Your task to perform on an android device: install app "Walmart Shopping & Grocery" Image 0: 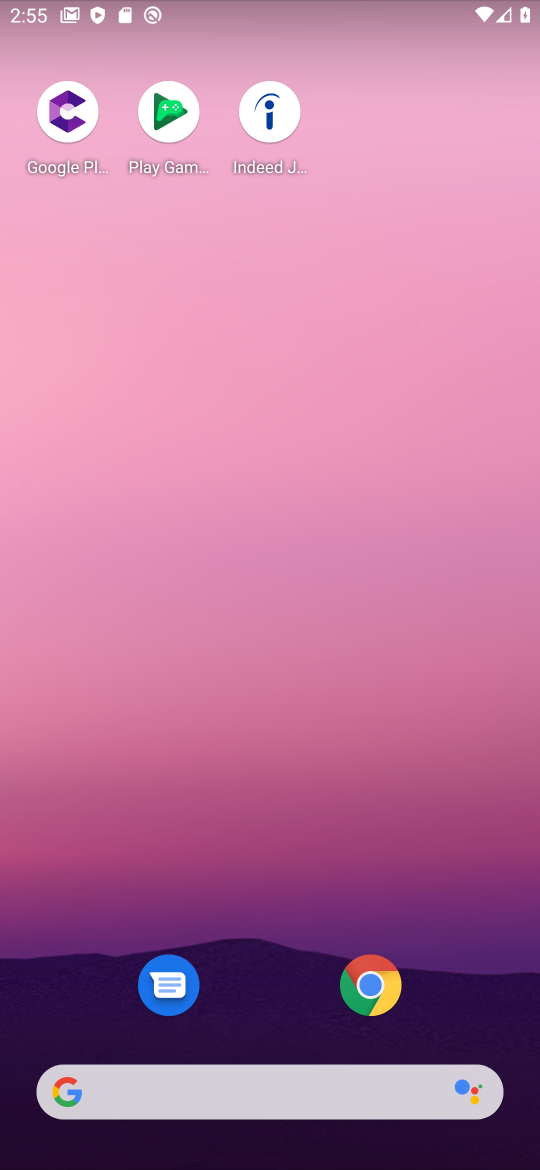
Step 0: drag from (233, 962) to (261, 341)
Your task to perform on an android device: install app "Walmart Shopping & Grocery" Image 1: 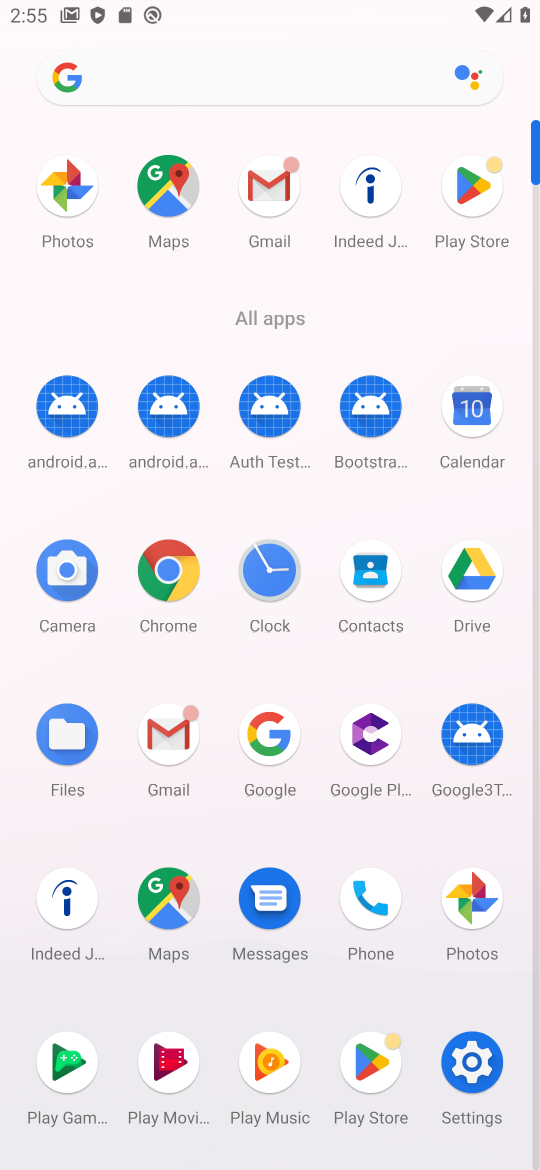
Step 1: click (485, 202)
Your task to perform on an android device: install app "Walmart Shopping & Grocery" Image 2: 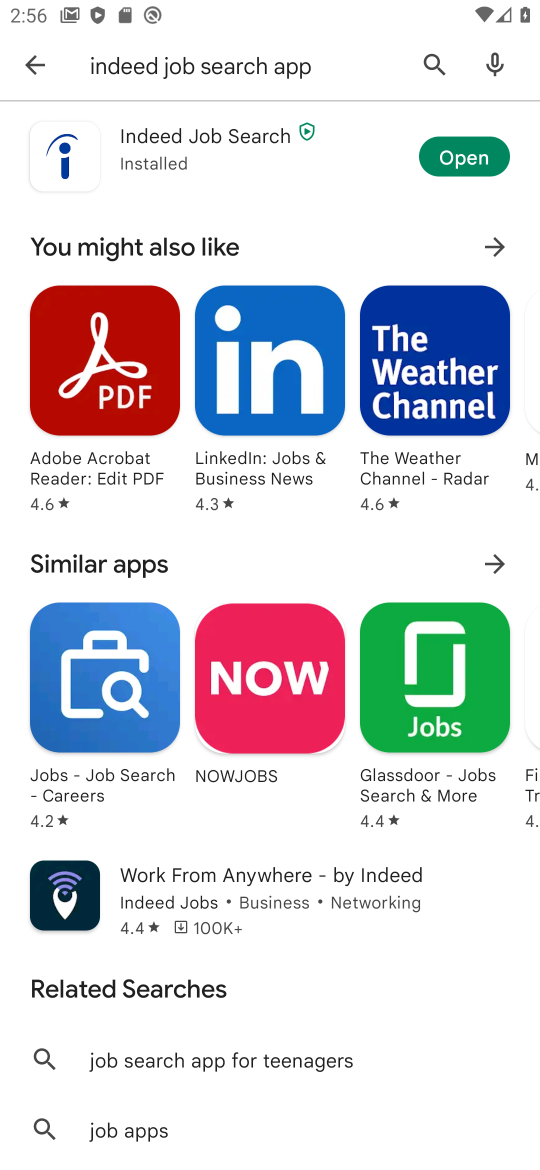
Step 2: click (36, 67)
Your task to perform on an android device: install app "Walmart Shopping & Grocery" Image 3: 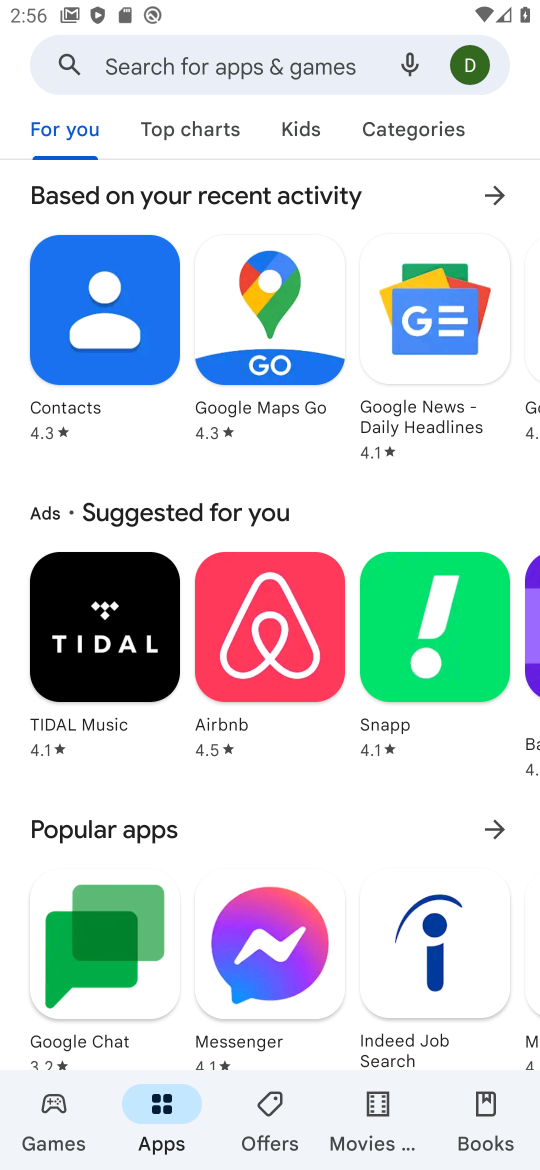
Step 3: click (273, 71)
Your task to perform on an android device: install app "Walmart Shopping & Grocery" Image 4: 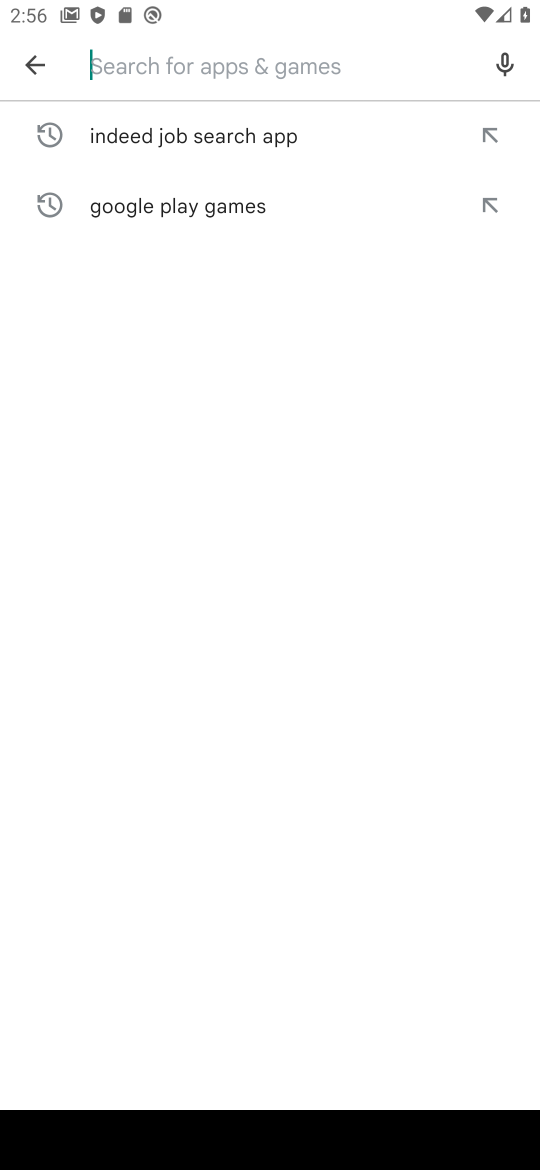
Step 4: type "Walmart Shopping & Grocery"
Your task to perform on an android device: install app "Walmart Shopping & Grocery" Image 5: 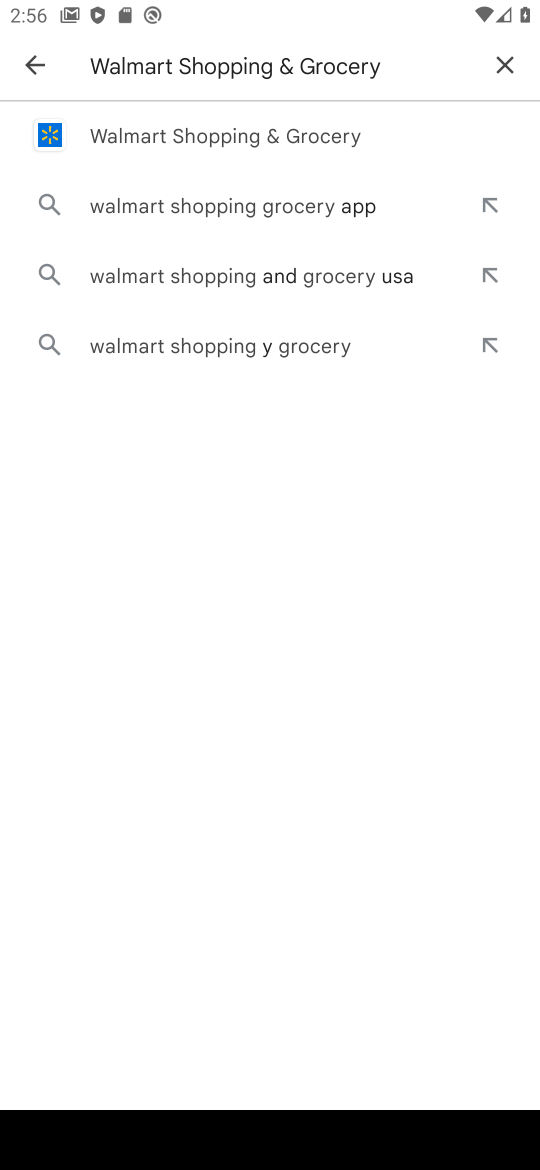
Step 5: click (303, 138)
Your task to perform on an android device: install app "Walmart Shopping & Grocery" Image 6: 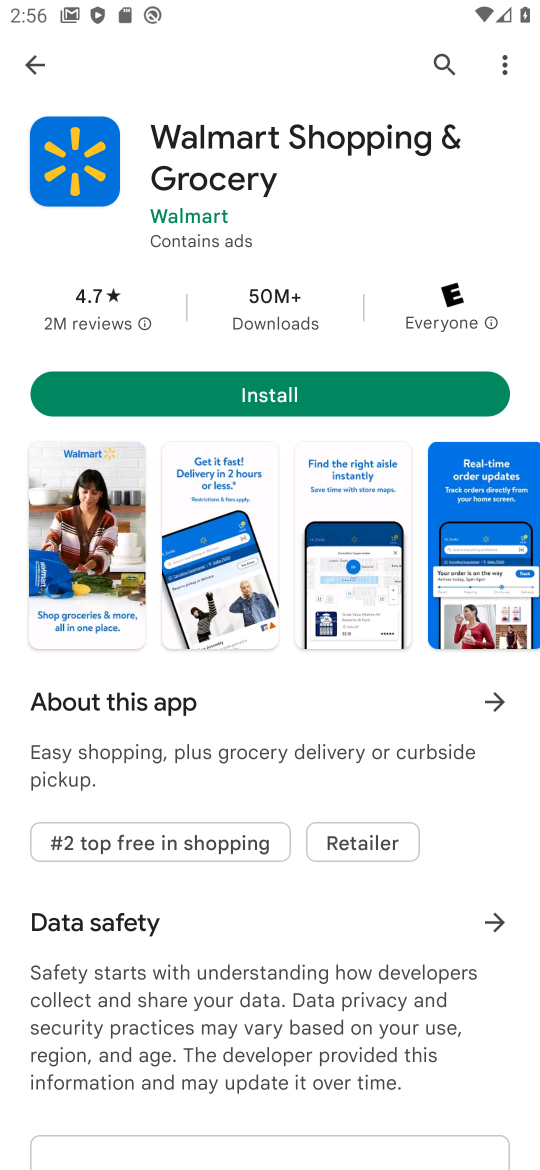
Step 6: click (256, 398)
Your task to perform on an android device: install app "Walmart Shopping & Grocery" Image 7: 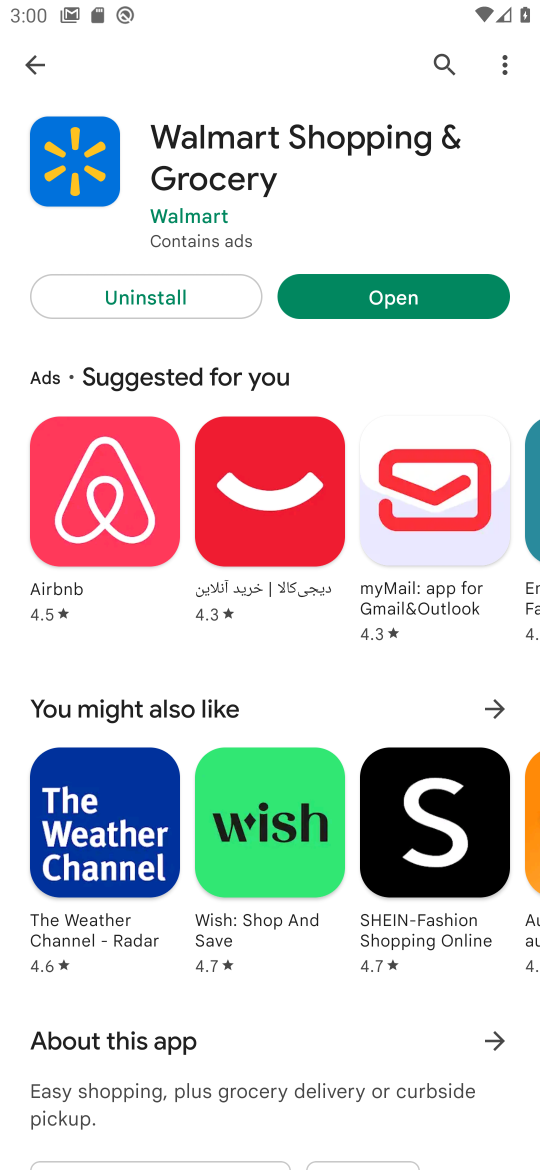
Step 7: click (404, 296)
Your task to perform on an android device: install app "Walmart Shopping & Grocery" Image 8: 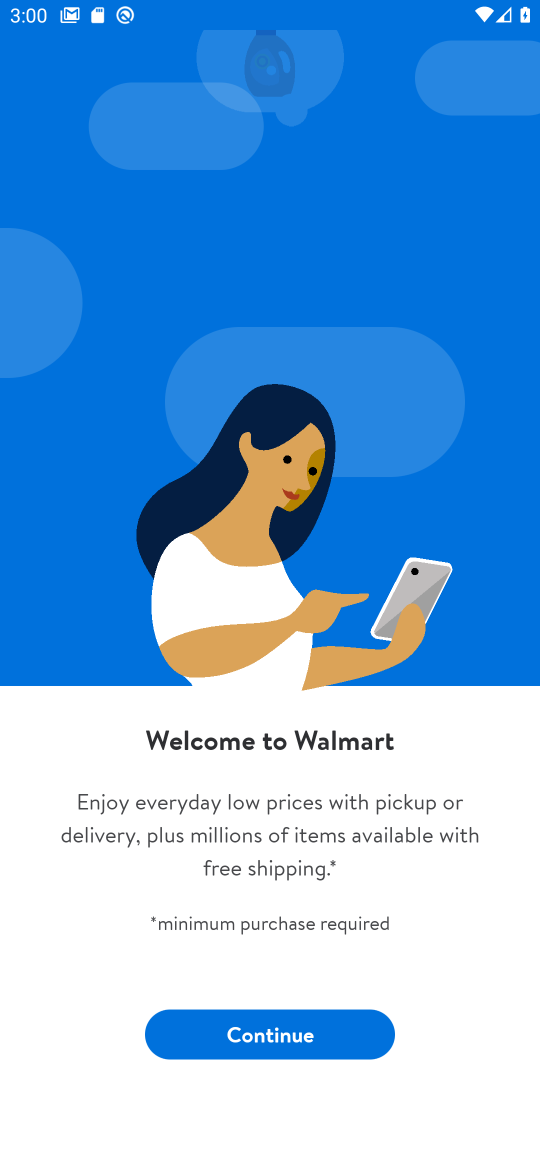
Step 8: click (269, 1031)
Your task to perform on an android device: install app "Walmart Shopping & Grocery" Image 9: 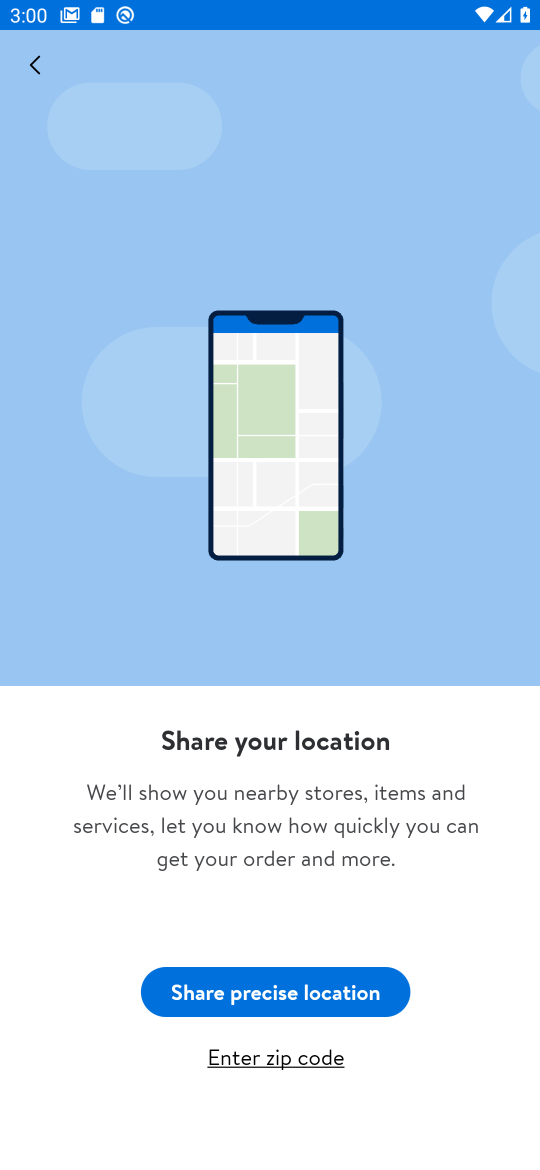
Step 9: task complete